Your task to perform on an android device: check out phone information Image 0: 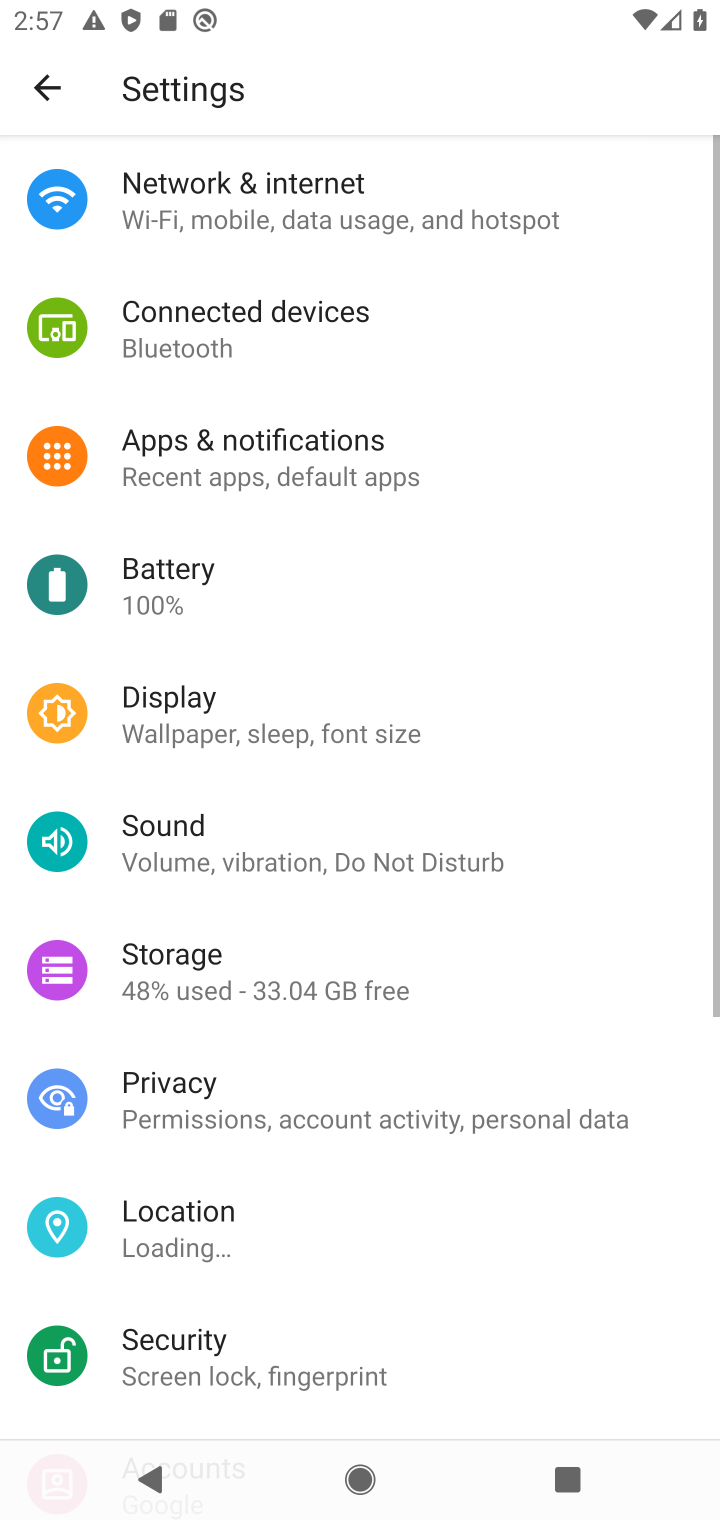
Step 0: press home button
Your task to perform on an android device: check out phone information Image 1: 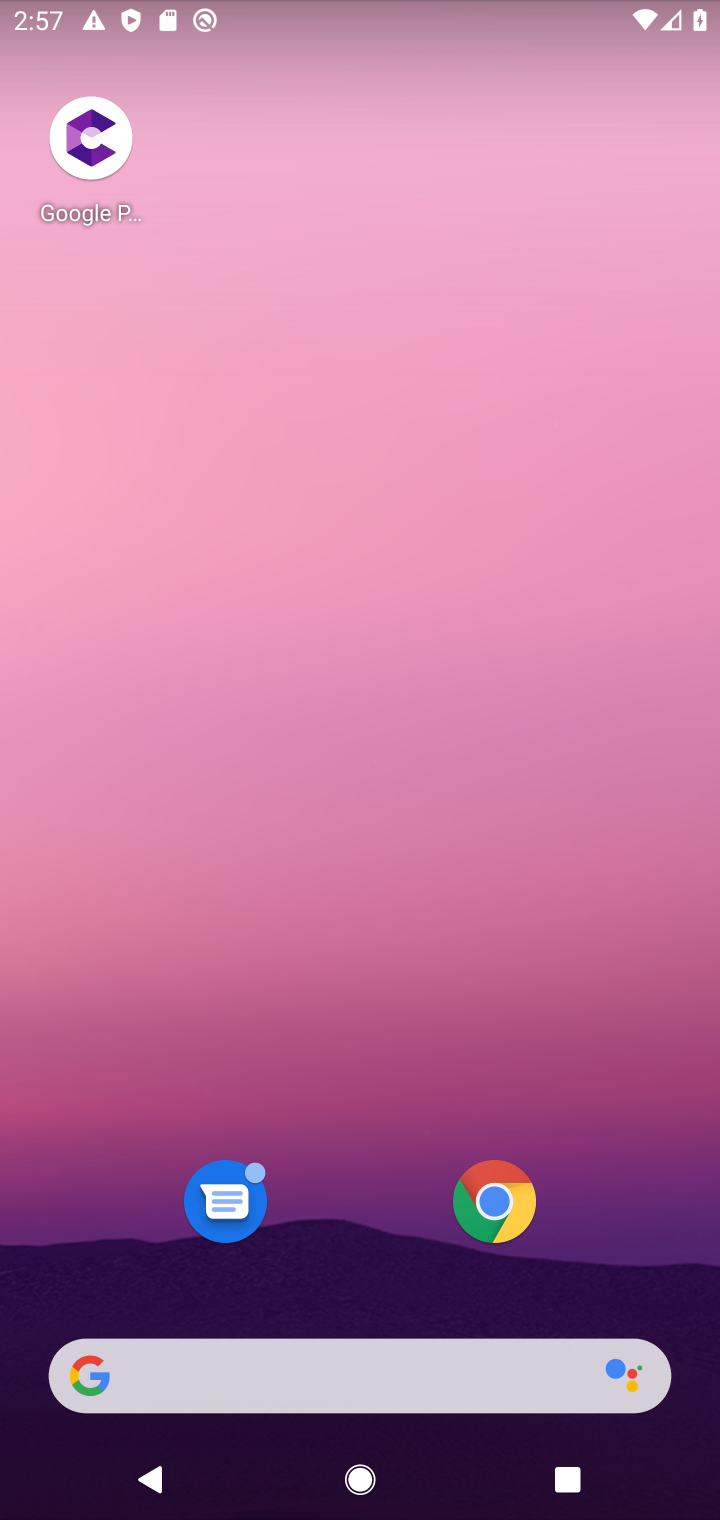
Step 1: drag from (362, 1196) to (379, 16)
Your task to perform on an android device: check out phone information Image 2: 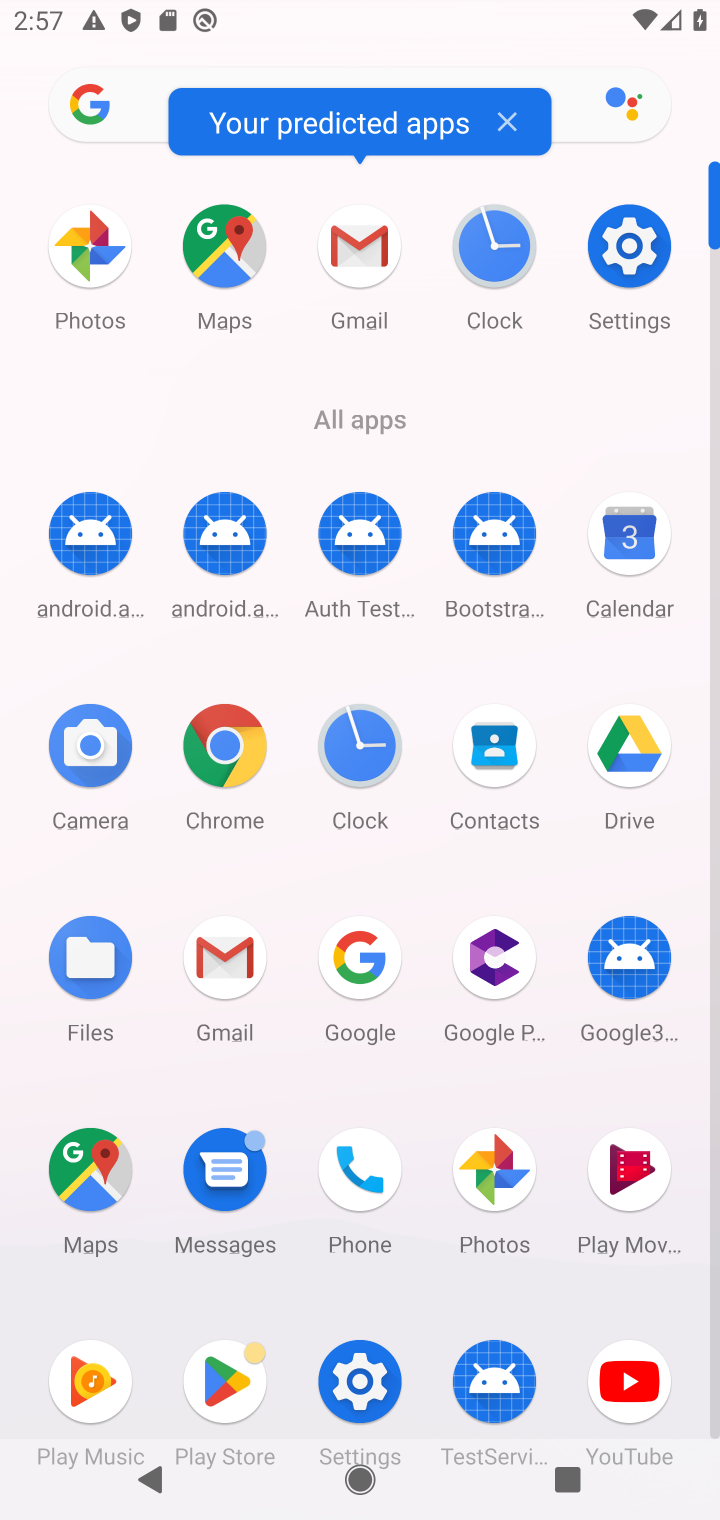
Step 2: click (627, 272)
Your task to perform on an android device: check out phone information Image 3: 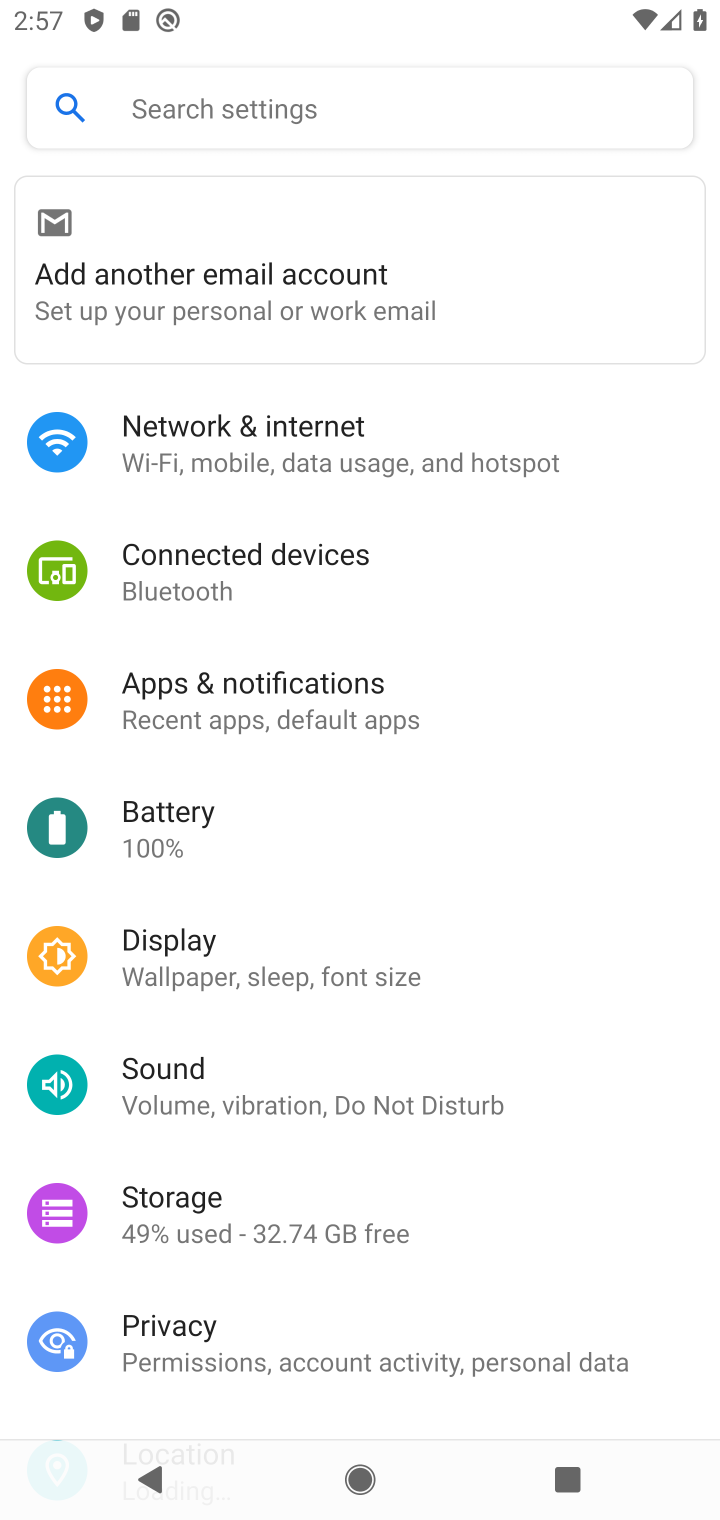
Step 3: drag from (296, 1296) to (179, 272)
Your task to perform on an android device: check out phone information Image 4: 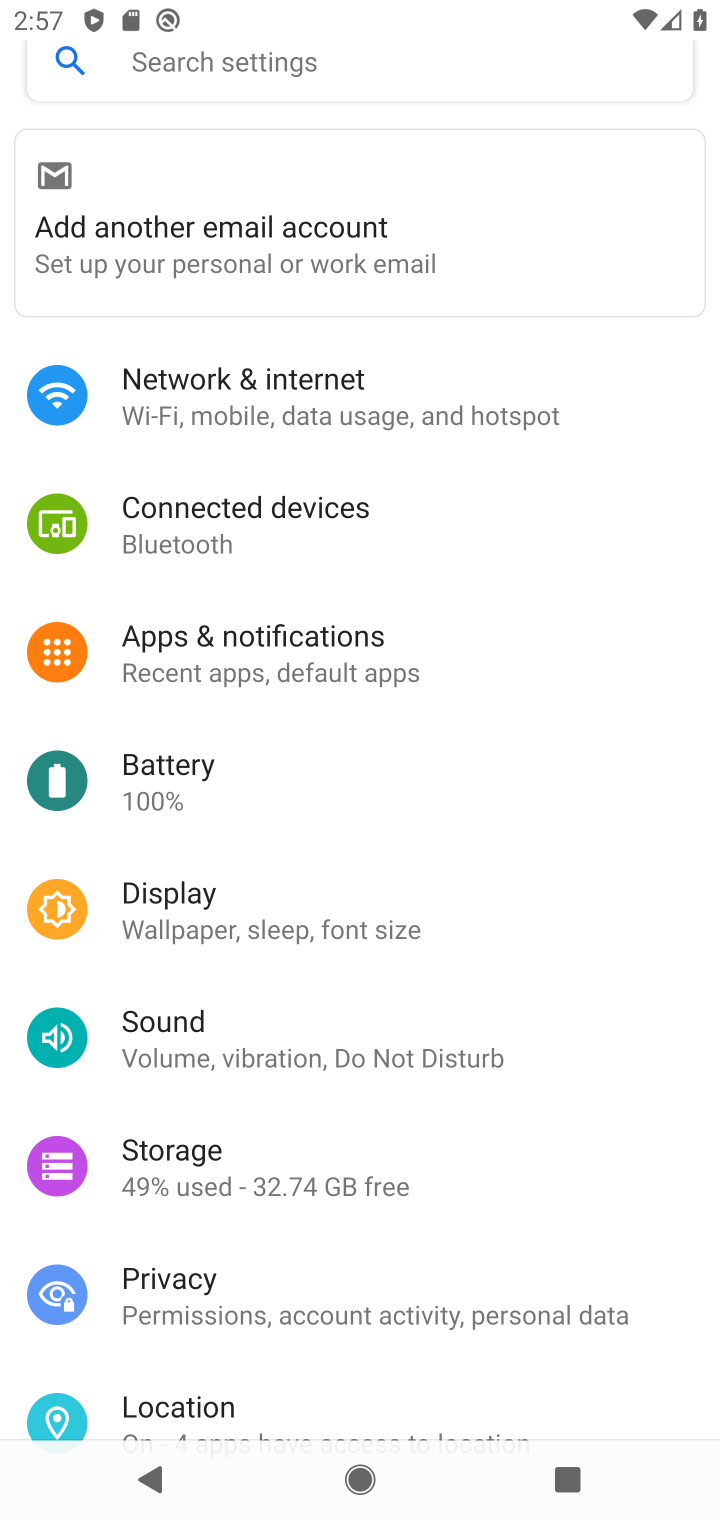
Step 4: drag from (323, 1334) to (196, 163)
Your task to perform on an android device: check out phone information Image 5: 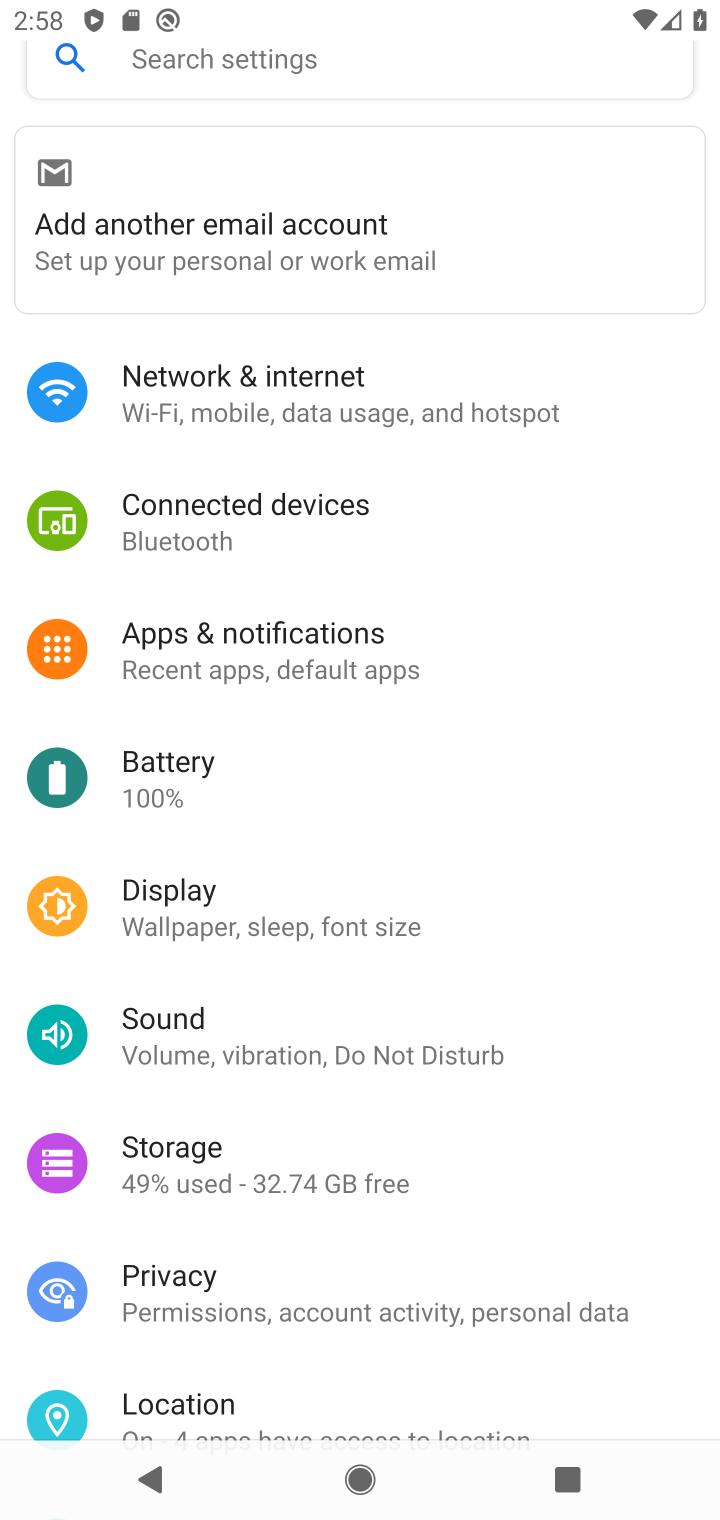
Step 5: drag from (199, 989) to (61, 153)
Your task to perform on an android device: check out phone information Image 6: 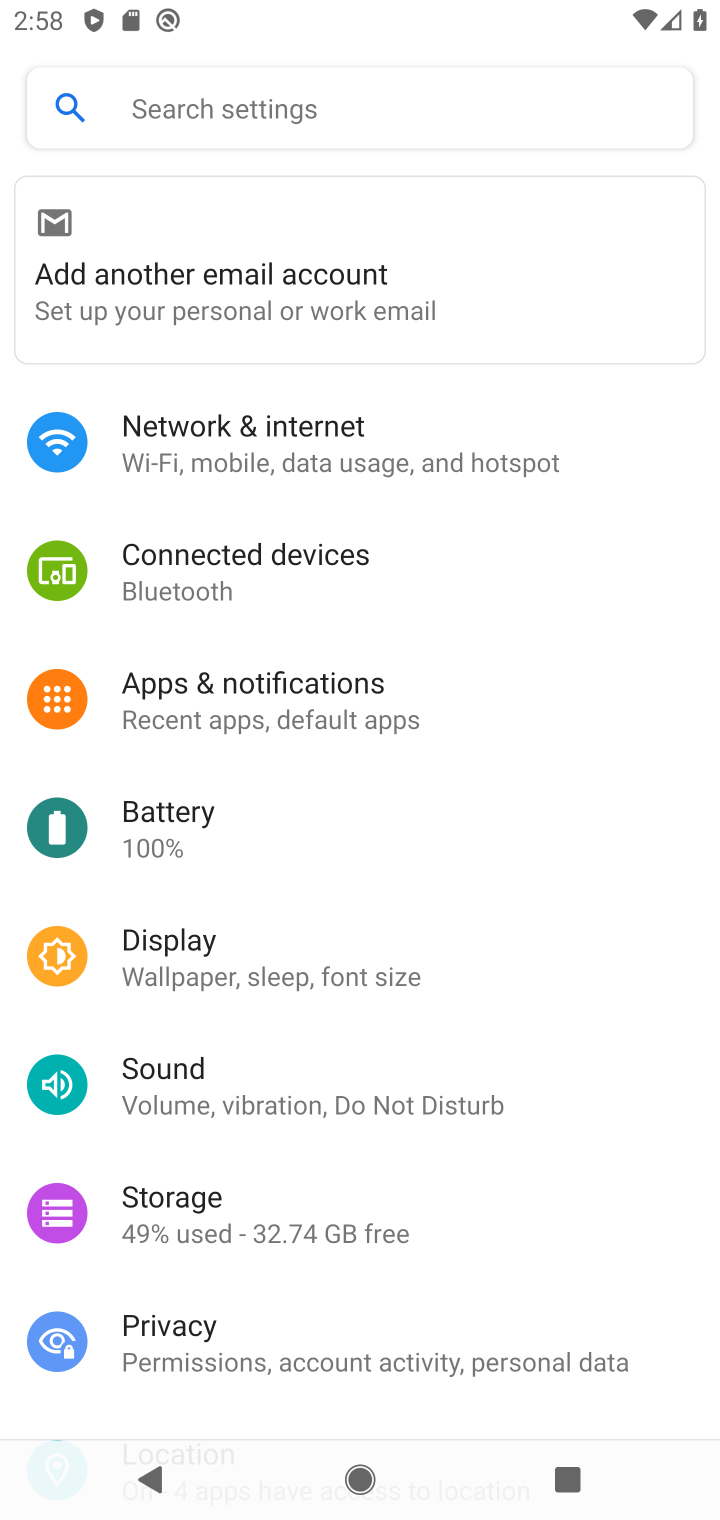
Step 6: drag from (313, 1101) to (241, 136)
Your task to perform on an android device: check out phone information Image 7: 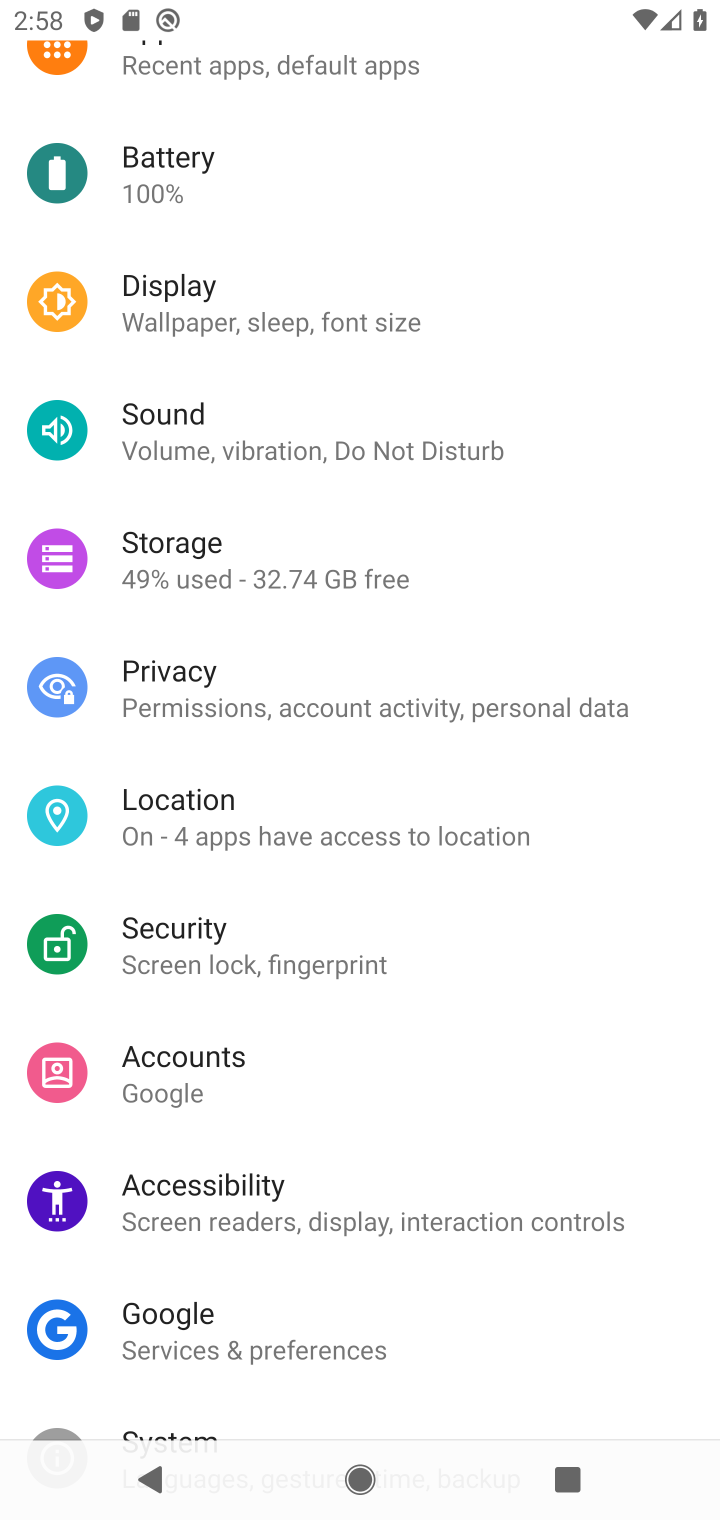
Step 7: drag from (306, 1105) to (252, 72)
Your task to perform on an android device: check out phone information Image 8: 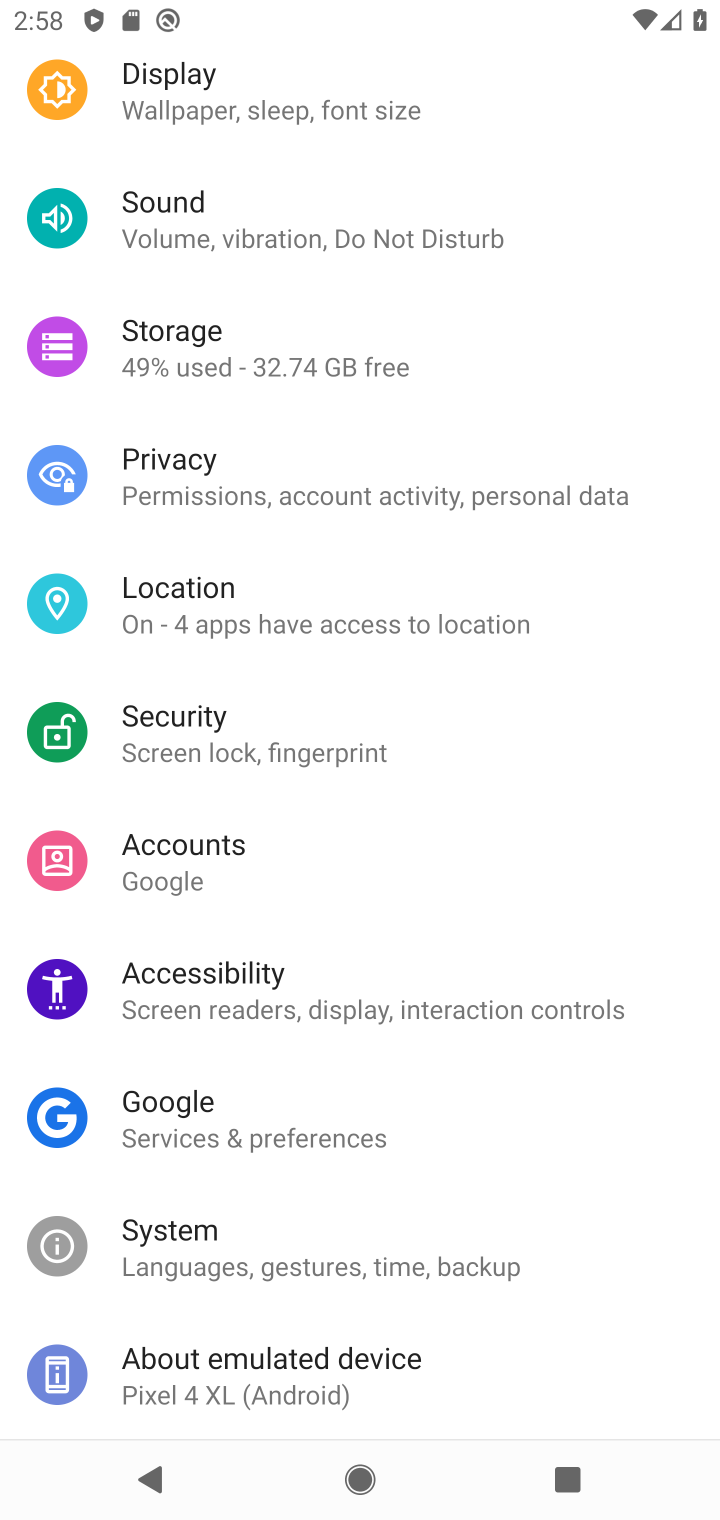
Step 8: click (232, 1356)
Your task to perform on an android device: check out phone information Image 9: 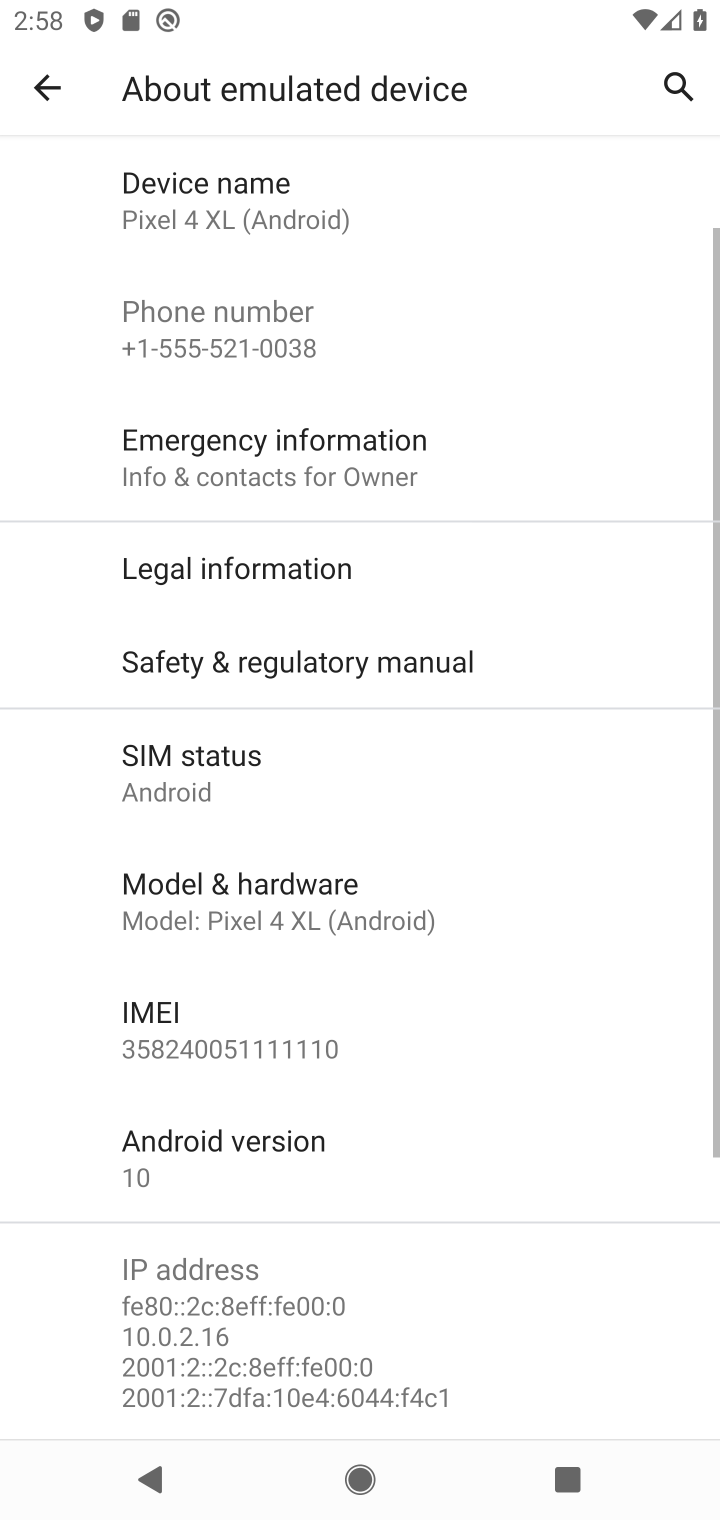
Step 9: task complete